Your task to perform on an android device: Go to Google Image 0: 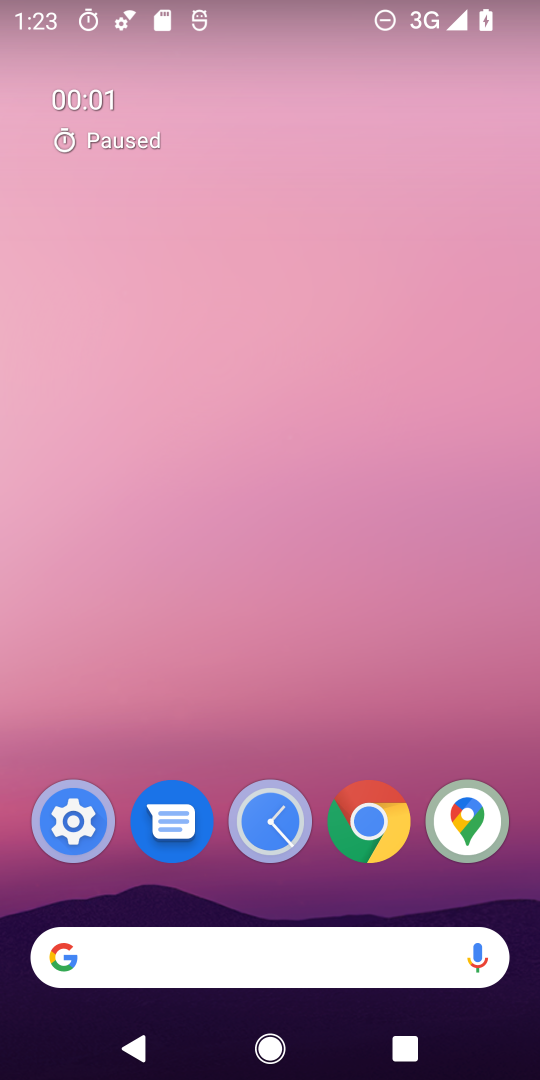
Step 0: drag from (523, 917) to (253, 79)
Your task to perform on an android device: Go to Google Image 1: 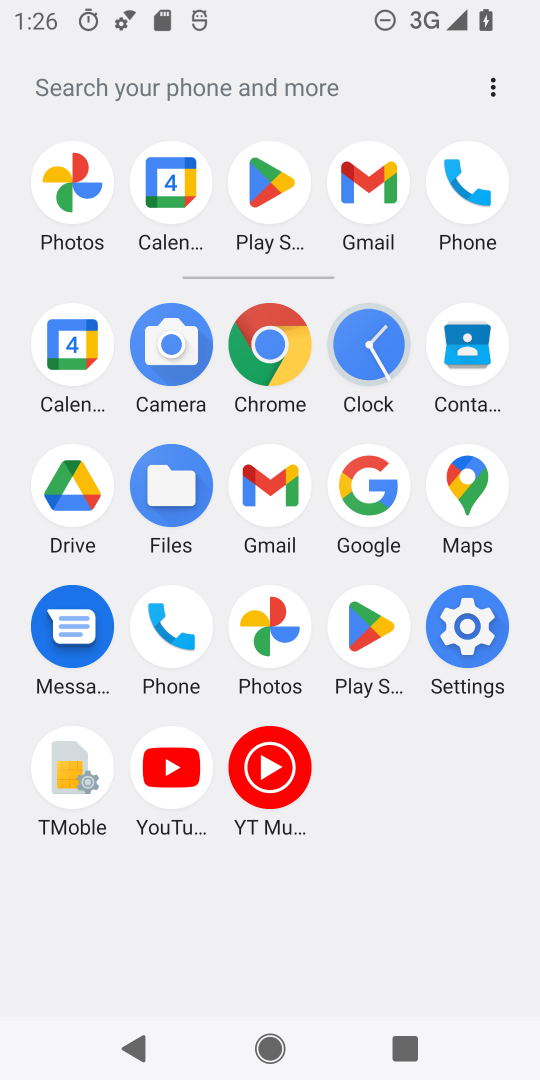
Step 1: click (369, 484)
Your task to perform on an android device: Go to Google Image 2: 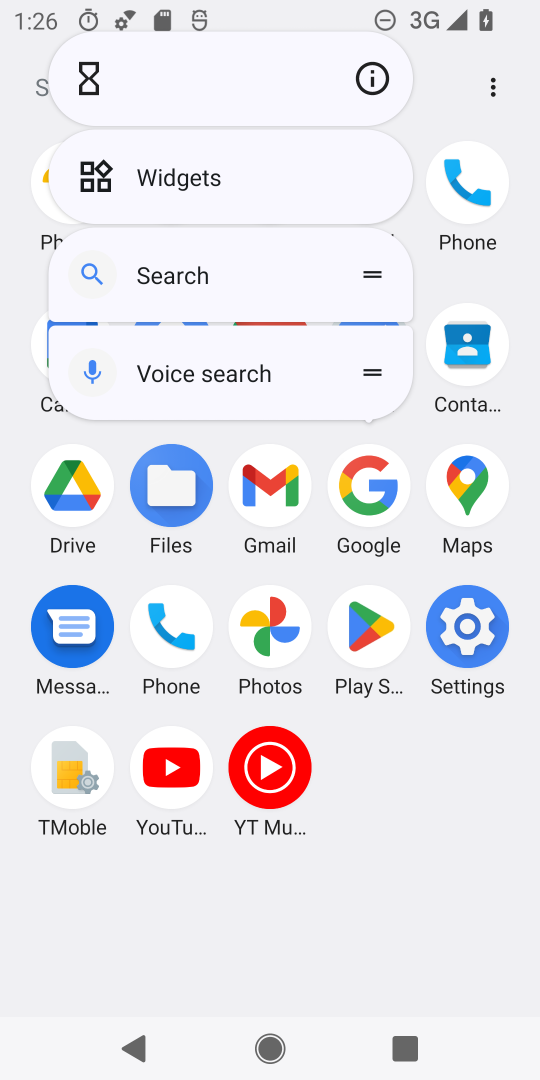
Step 2: click (369, 484)
Your task to perform on an android device: Go to Google Image 3: 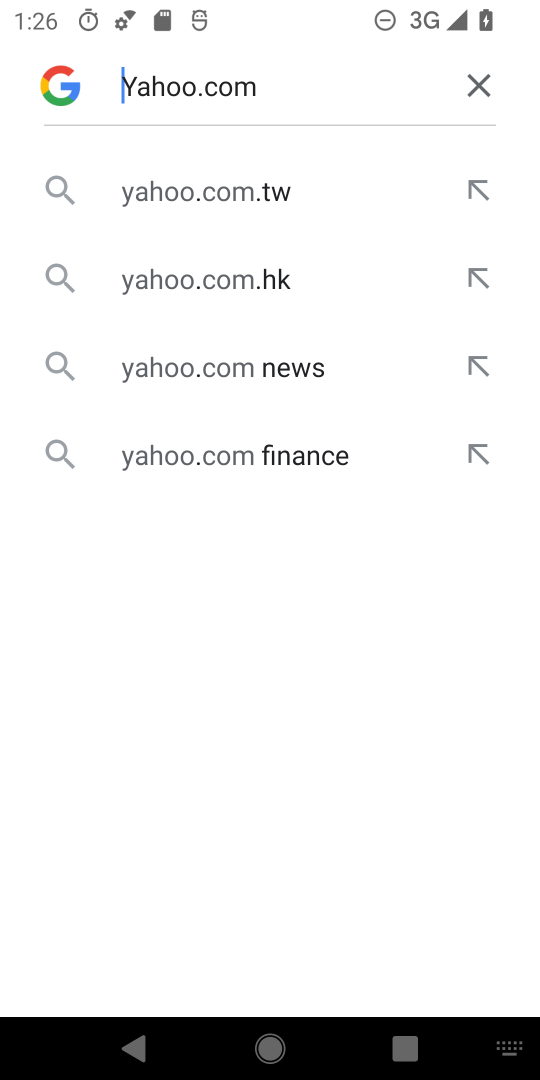
Step 3: click (486, 84)
Your task to perform on an android device: Go to Google Image 4: 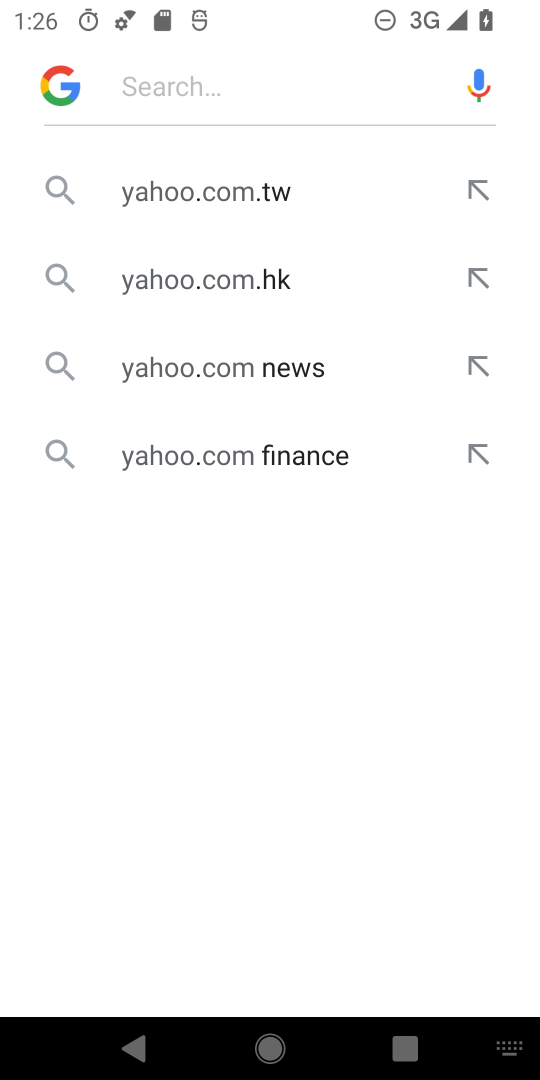
Step 4: task complete